Your task to perform on an android device: Open Yahoo.com Image 0: 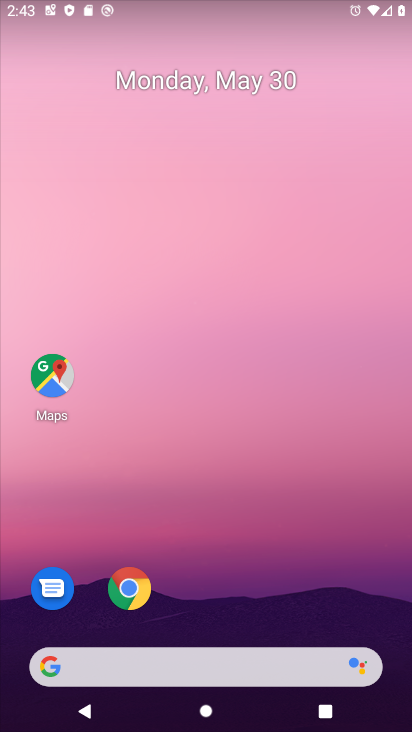
Step 0: click (116, 588)
Your task to perform on an android device: Open Yahoo.com Image 1: 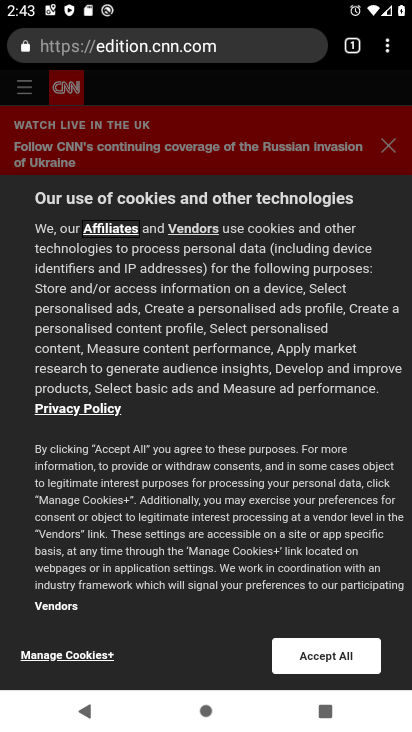
Step 1: click (347, 652)
Your task to perform on an android device: Open Yahoo.com Image 2: 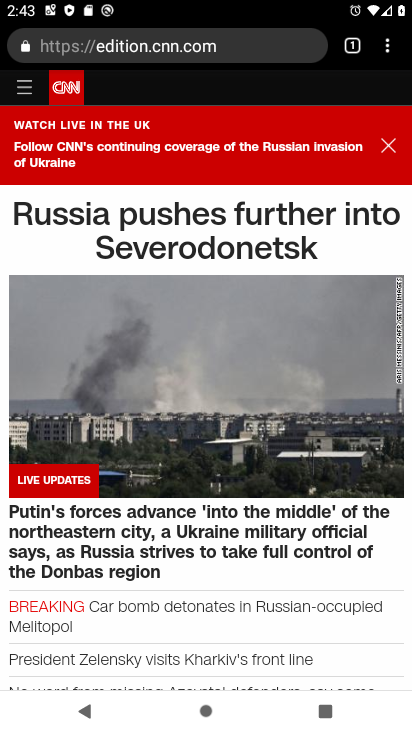
Step 2: click (210, 48)
Your task to perform on an android device: Open Yahoo.com Image 3: 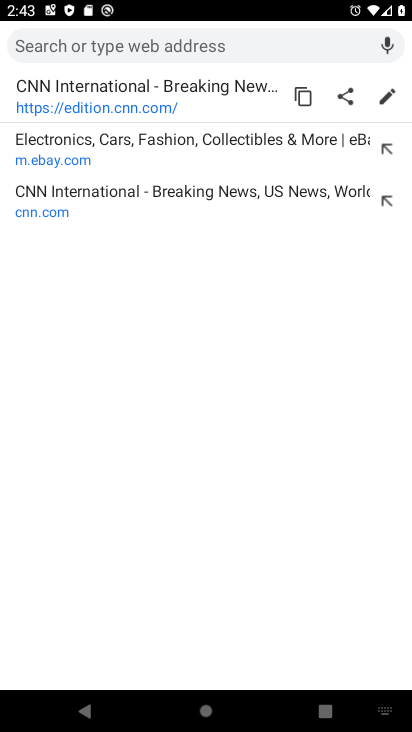
Step 3: type "yahoo"
Your task to perform on an android device: Open Yahoo.com Image 4: 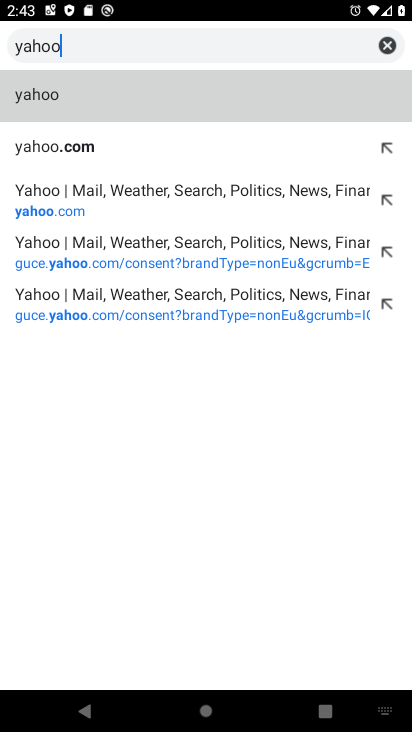
Step 4: type ""
Your task to perform on an android device: Open Yahoo.com Image 5: 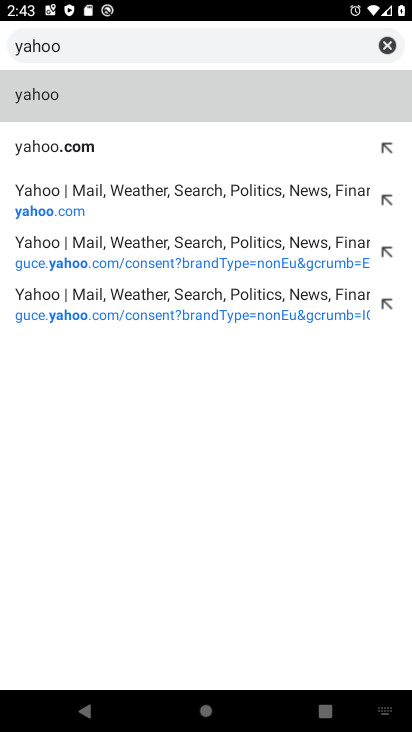
Step 5: click (114, 196)
Your task to perform on an android device: Open Yahoo.com Image 6: 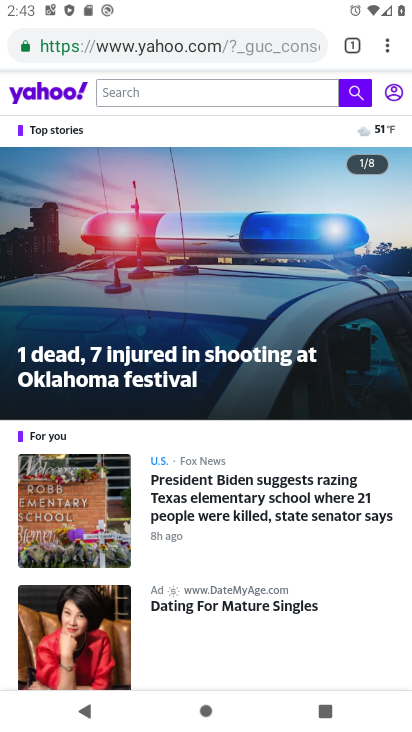
Step 6: task complete